Your task to perform on an android device: Search for Italian restaurants on Maps Image 0: 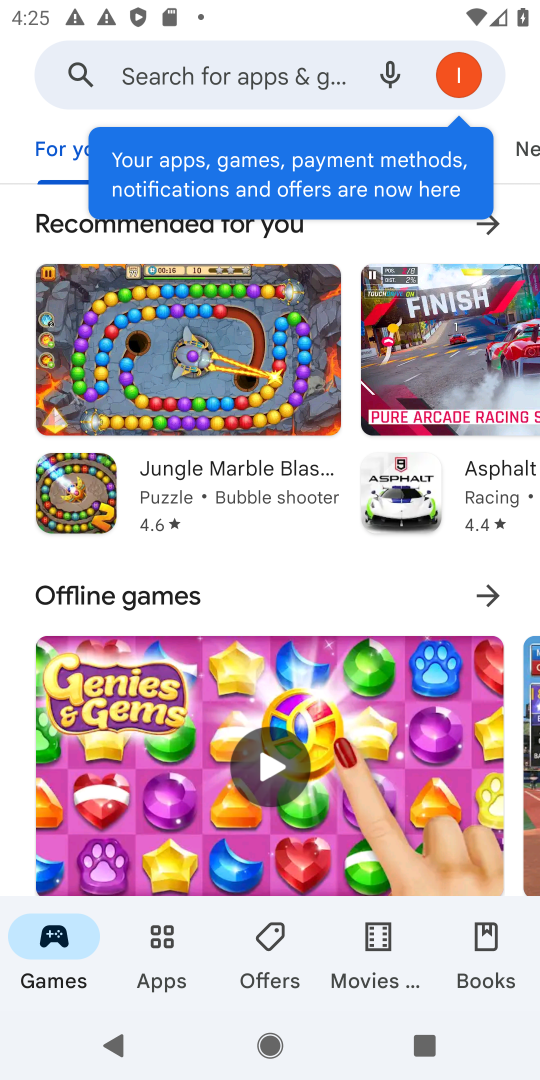
Step 0: press home button
Your task to perform on an android device: Search for Italian restaurants on Maps Image 1: 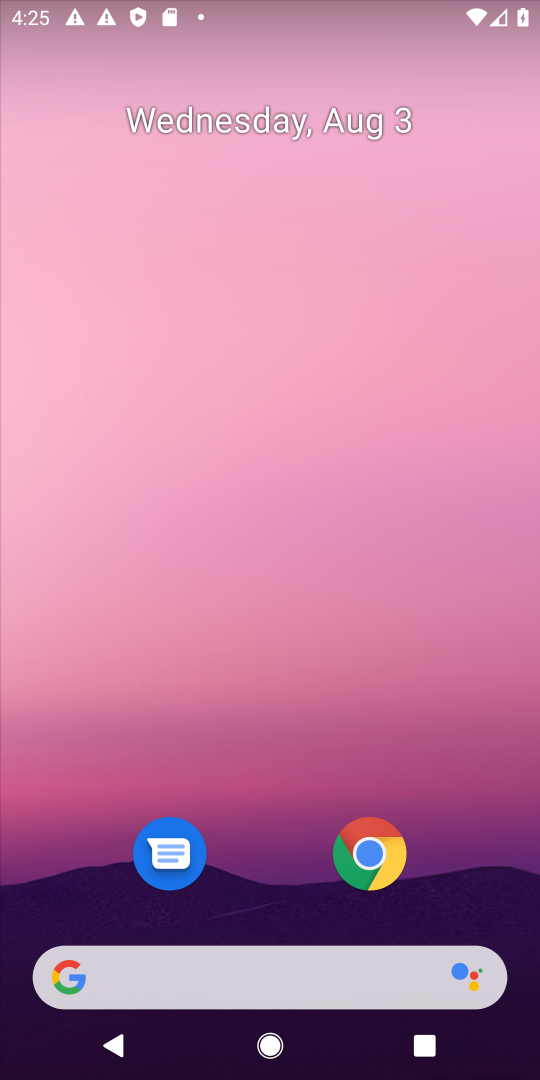
Step 1: drag from (483, 912) to (412, 3)
Your task to perform on an android device: Search for Italian restaurants on Maps Image 2: 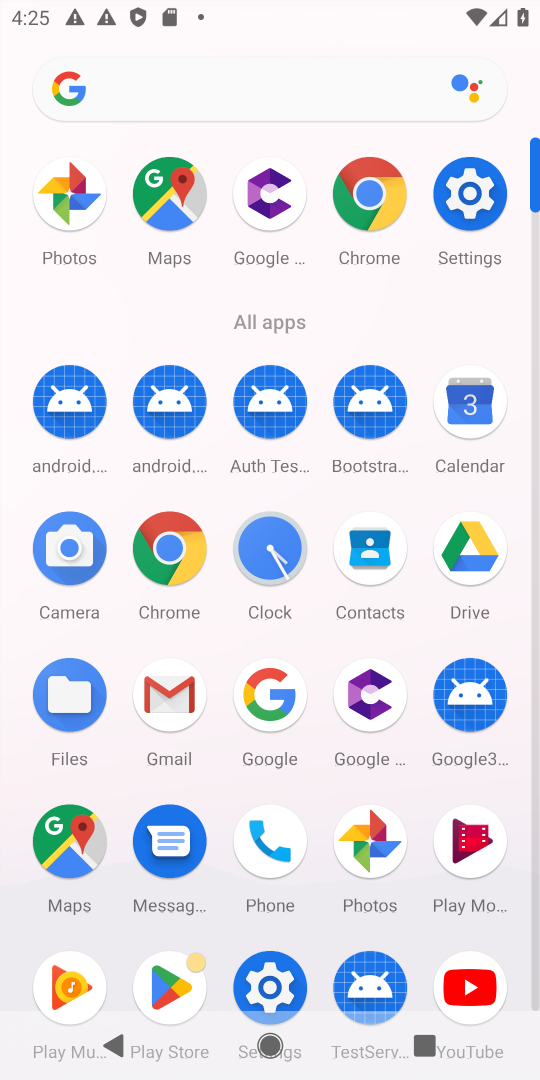
Step 2: click (163, 228)
Your task to perform on an android device: Search for Italian restaurants on Maps Image 3: 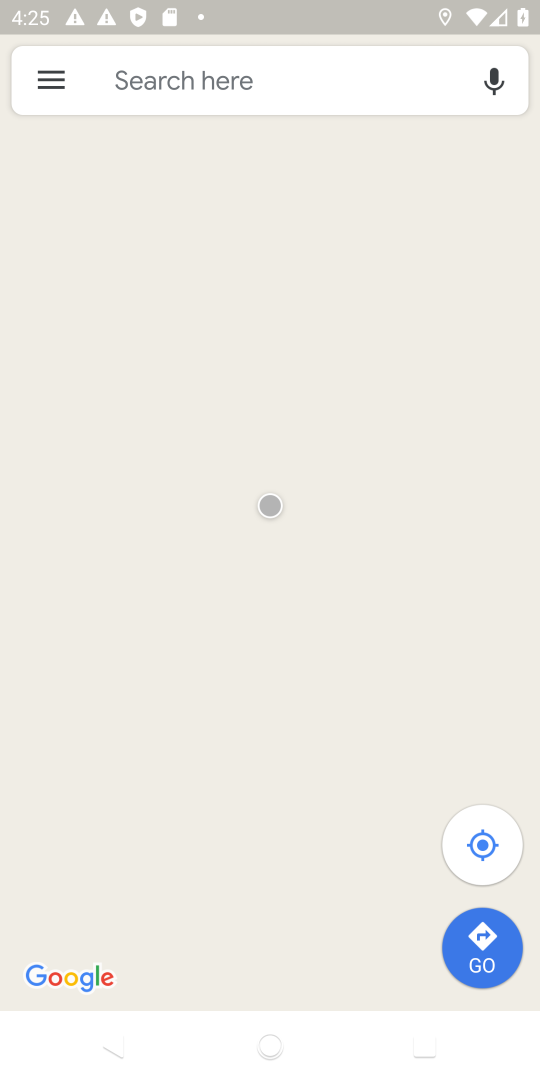
Step 3: click (187, 89)
Your task to perform on an android device: Search for Italian restaurants on Maps Image 4: 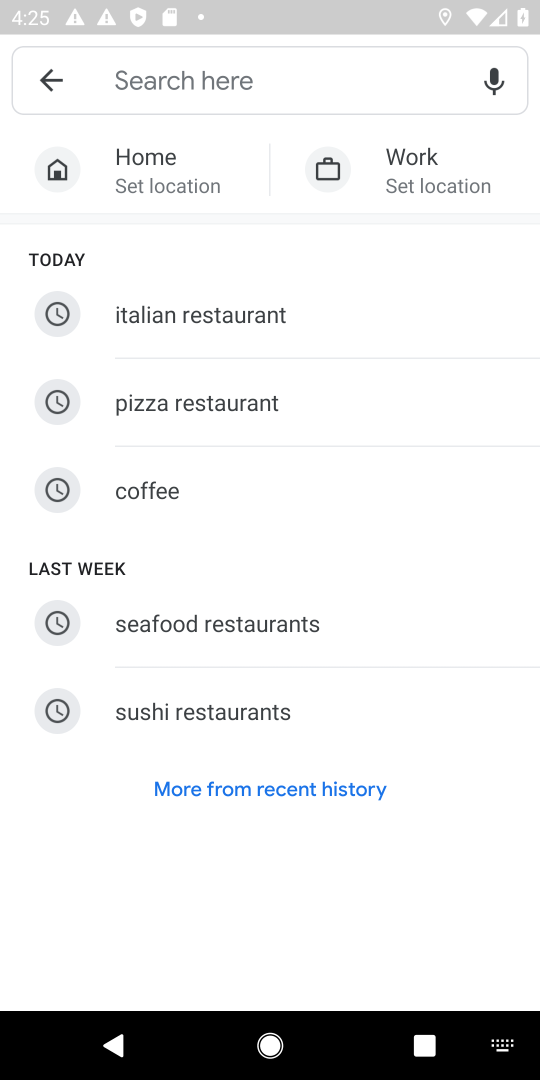
Step 4: type "Italian restaurants"
Your task to perform on an android device: Search for Italian restaurants on Maps Image 5: 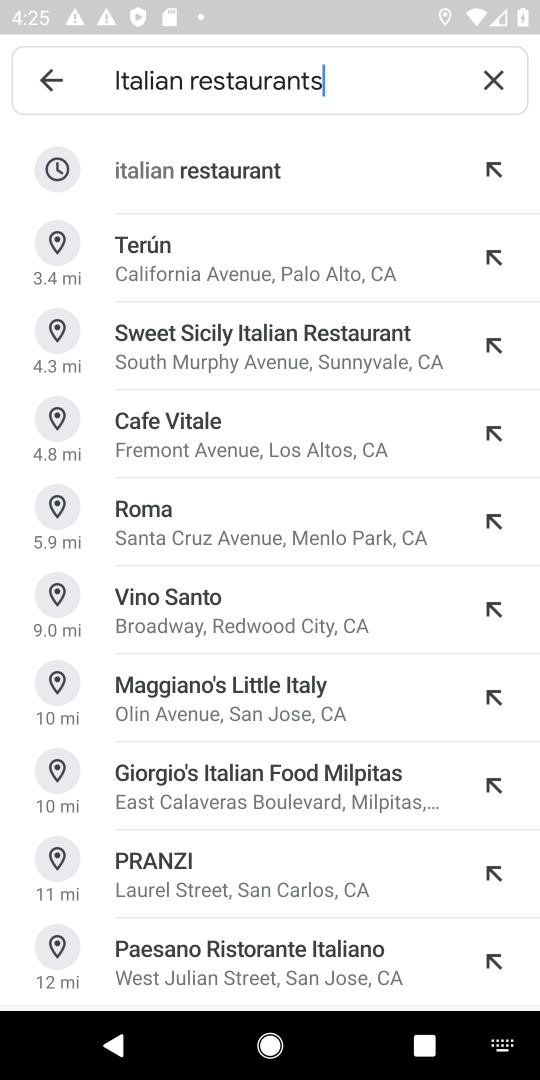
Step 5: click (251, 190)
Your task to perform on an android device: Search for Italian restaurants on Maps Image 6: 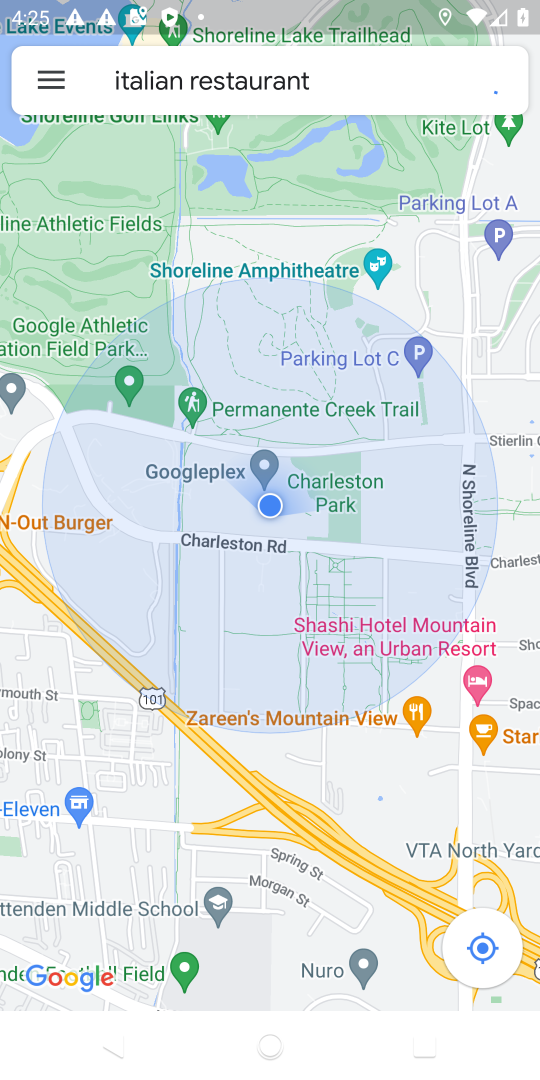
Step 6: task complete